Your task to perform on an android device: Open calendar and show me the fourth week of next month Image 0: 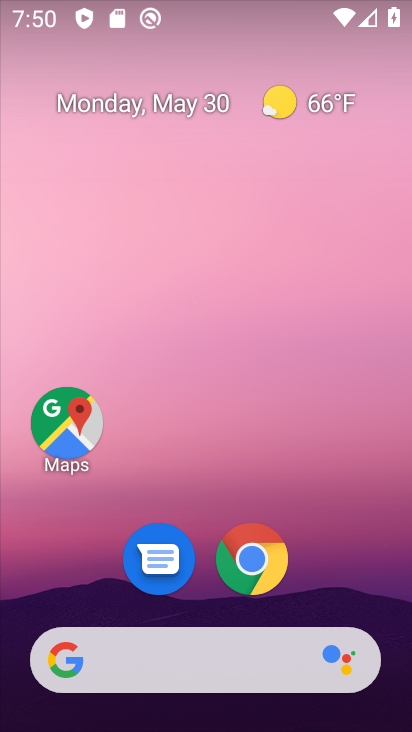
Step 0: drag from (266, 549) to (155, 45)
Your task to perform on an android device: Open calendar and show me the fourth week of next month Image 1: 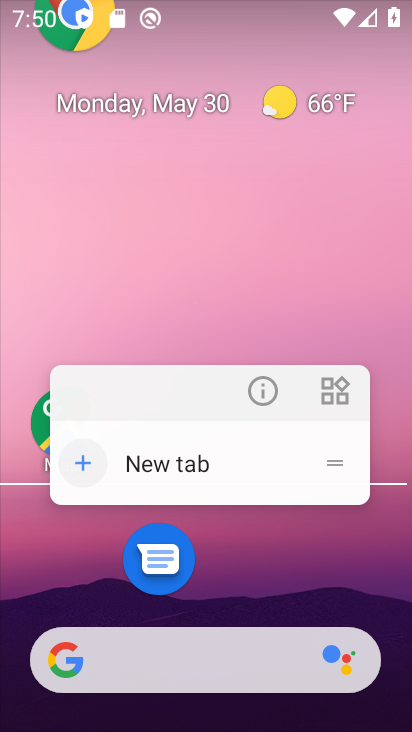
Step 1: click (147, 136)
Your task to perform on an android device: Open calendar and show me the fourth week of next month Image 2: 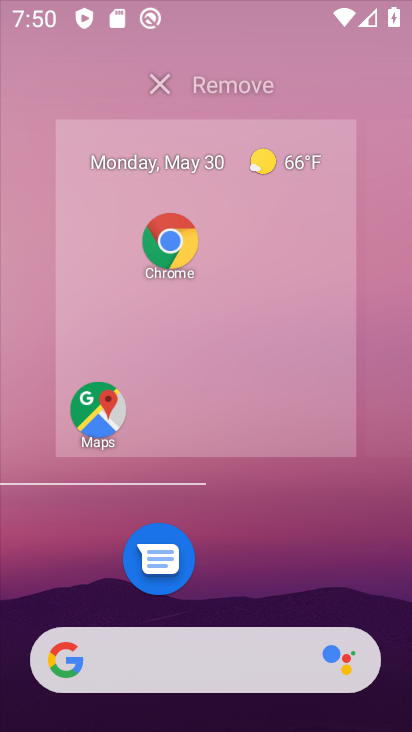
Step 2: drag from (262, 642) to (118, 69)
Your task to perform on an android device: Open calendar and show me the fourth week of next month Image 3: 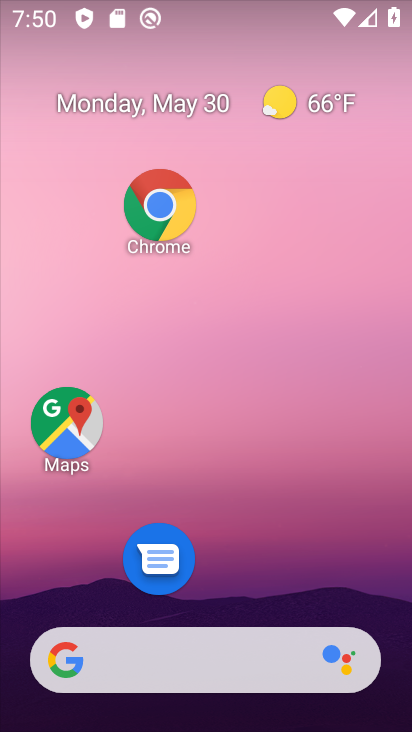
Step 3: drag from (167, 300) to (111, 69)
Your task to perform on an android device: Open calendar and show me the fourth week of next month Image 4: 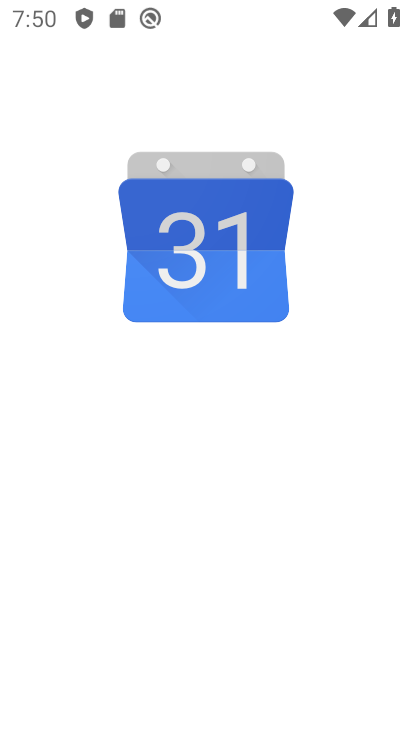
Step 4: drag from (216, 575) to (163, 155)
Your task to perform on an android device: Open calendar and show me the fourth week of next month Image 5: 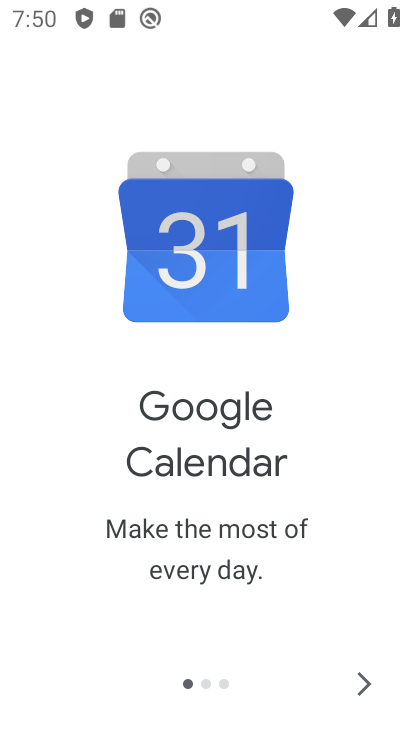
Step 5: click (362, 681)
Your task to perform on an android device: Open calendar and show me the fourth week of next month Image 6: 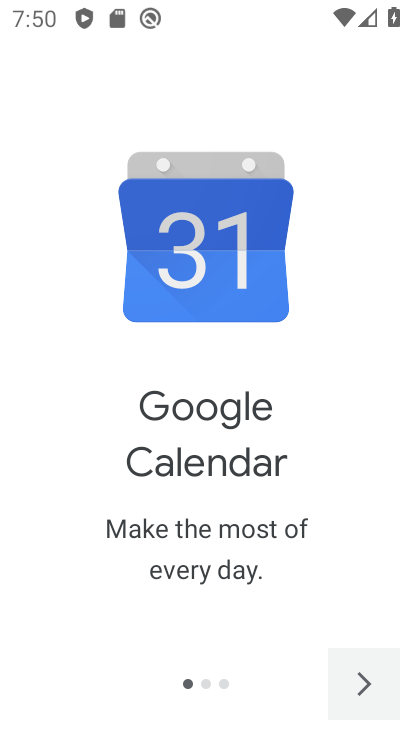
Step 6: click (362, 681)
Your task to perform on an android device: Open calendar and show me the fourth week of next month Image 7: 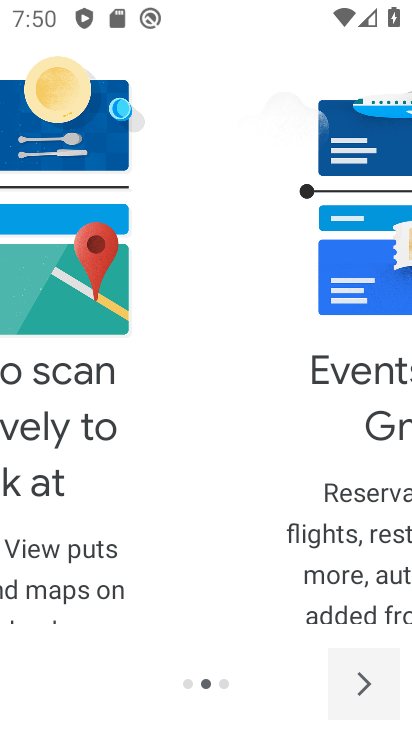
Step 7: click (361, 682)
Your task to perform on an android device: Open calendar and show me the fourth week of next month Image 8: 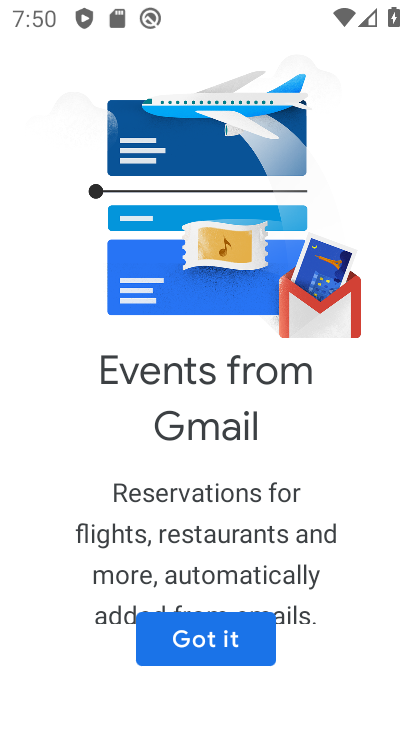
Step 8: click (361, 683)
Your task to perform on an android device: Open calendar and show me the fourth week of next month Image 9: 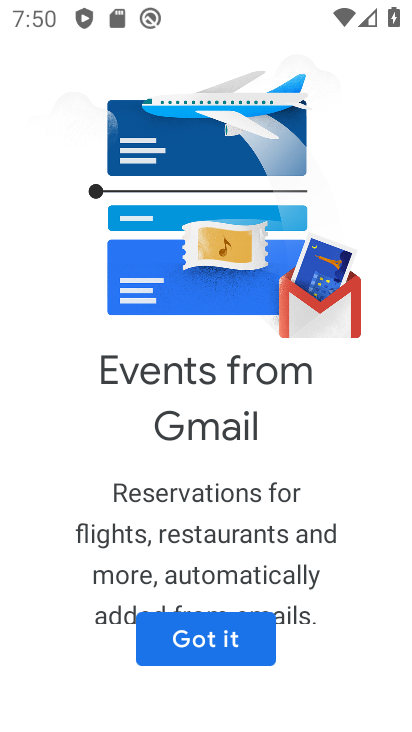
Step 9: click (361, 683)
Your task to perform on an android device: Open calendar and show me the fourth week of next month Image 10: 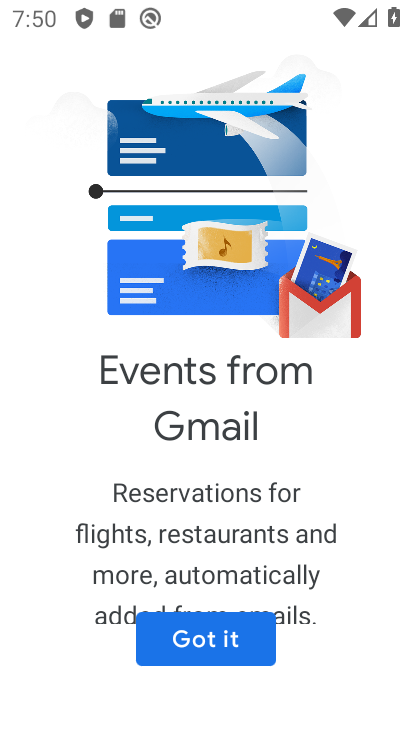
Step 10: click (362, 684)
Your task to perform on an android device: Open calendar and show me the fourth week of next month Image 11: 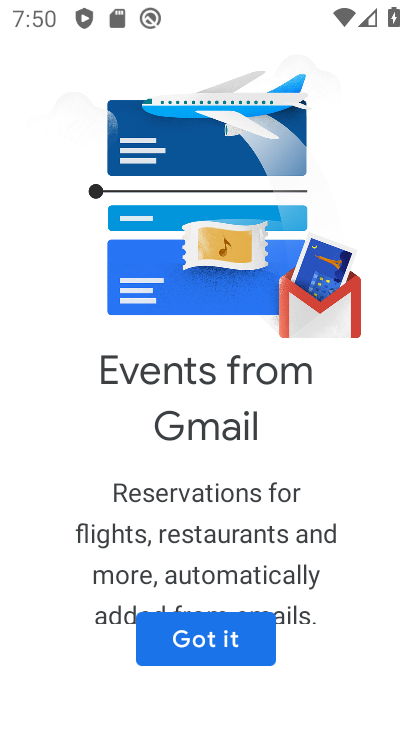
Step 11: click (362, 684)
Your task to perform on an android device: Open calendar and show me the fourth week of next month Image 12: 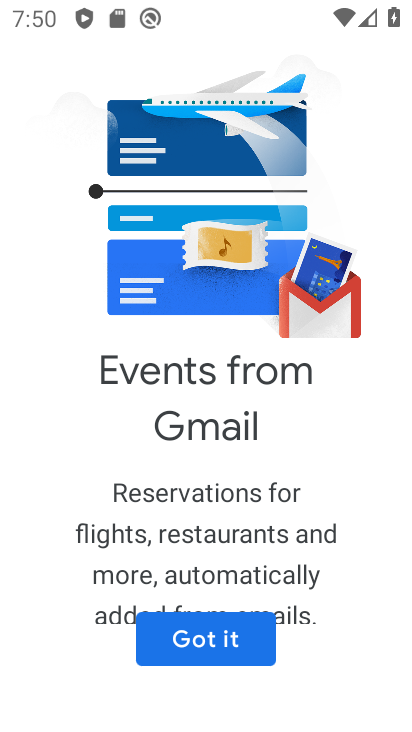
Step 12: click (363, 685)
Your task to perform on an android device: Open calendar and show me the fourth week of next month Image 13: 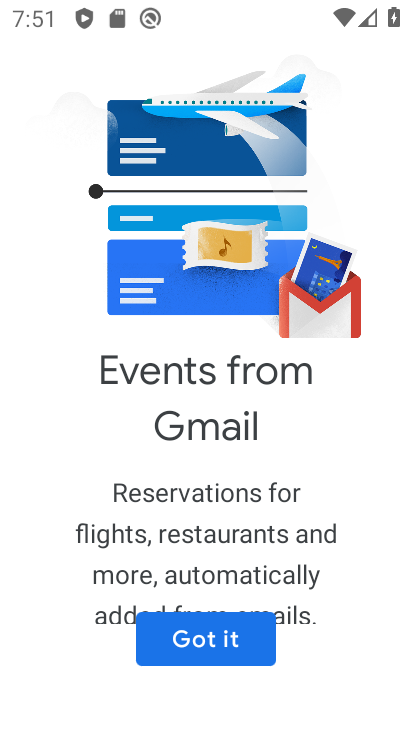
Step 13: click (204, 639)
Your task to perform on an android device: Open calendar and show me the fourth week of next month Image 14: 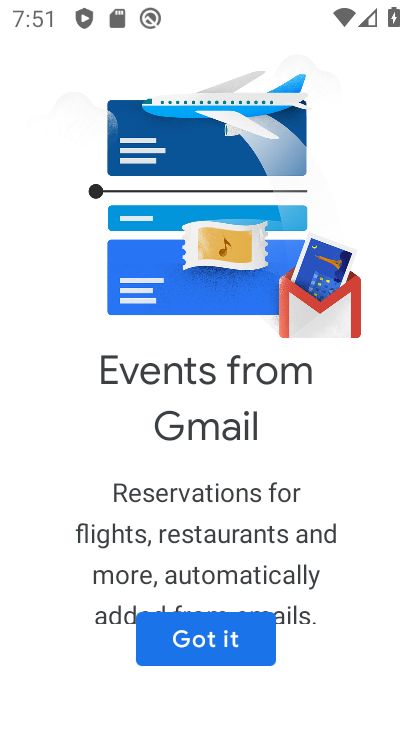
Step 14: click (203, 638)
Your task to perform on an android device: Open calendar and show me the fourth week of next month Image 15: 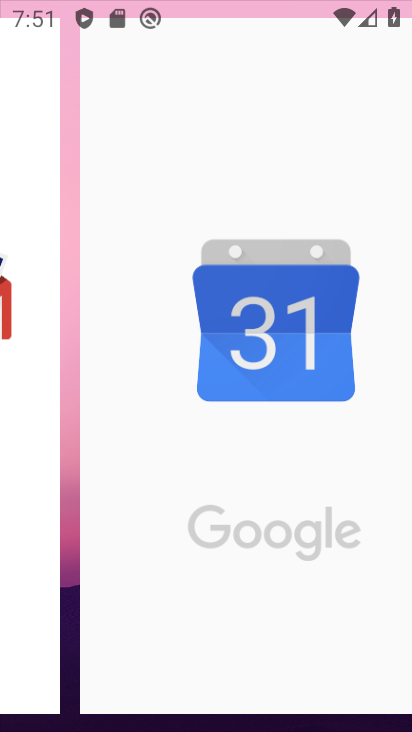
Step 15: click (216, 642)
Your task to perform on an android device: Open calendar and show me the fourth week of next month Image 16: 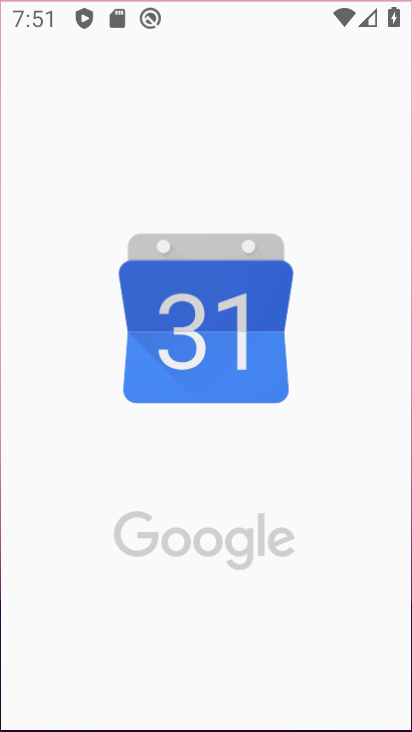
Step 16: click (218, 643)
Your task to perform on an android device: Open calendar and show me the fourth week of next month Image 17: 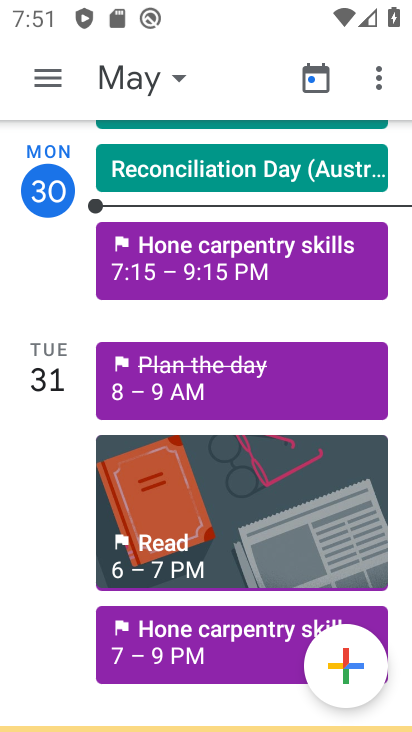
Step 17: click (169, 75)
Your task to perform on an android device: Open calendar and show me the fourth week of next month Image 18: 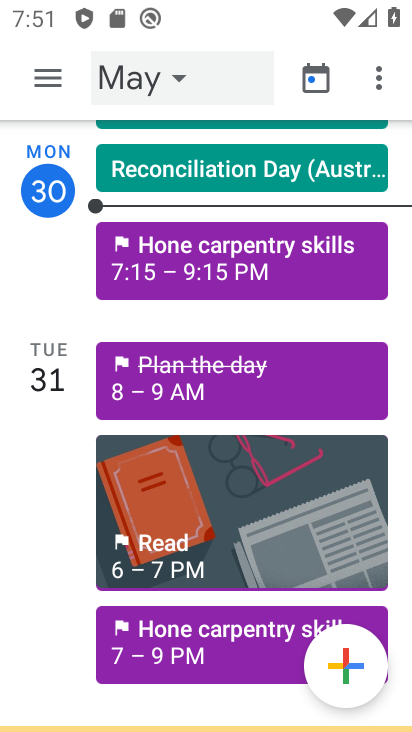
Step 18: click (171, 75)
Your task to perform on an android device: Open calendar and show me the fourth week of next month Image 19: 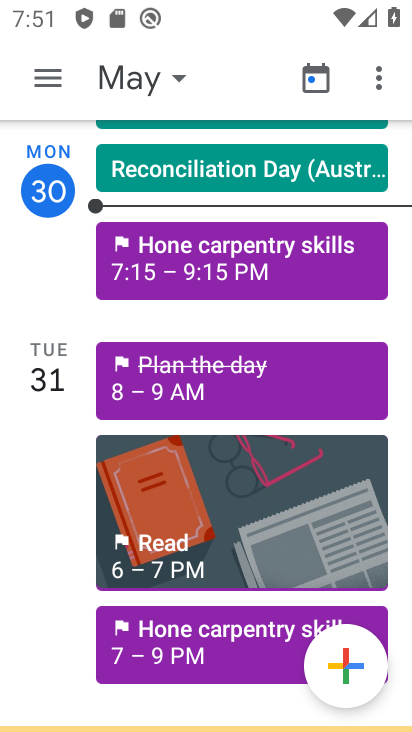
Step 19: drag from (300, 283) to (42, 308)
Your task to perform on an android device: Open calendar and show me the fourth week of next month Image 20: 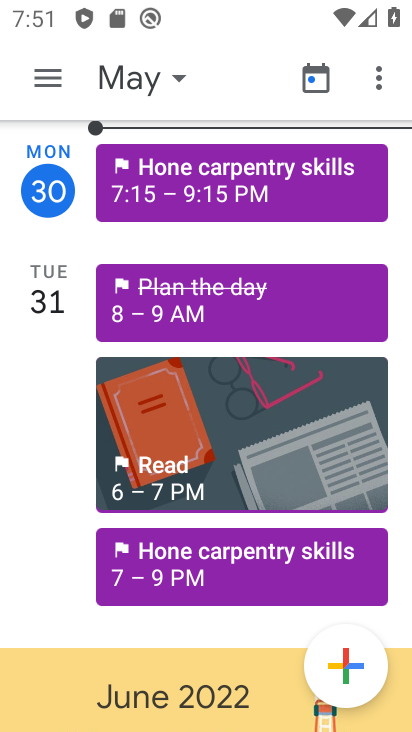
Step 20: click (174, 71)
Your task to perform on an android device: Open calendar and show me the fourth week of next month Image 21: 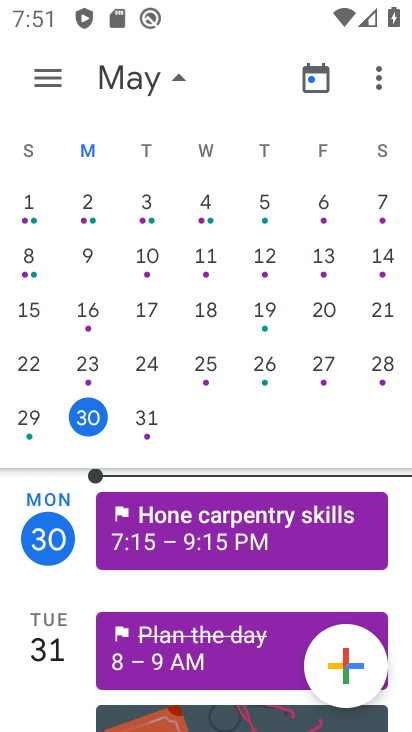
Step 21: drag from (298, 300) to (20, 271)
Your task to perform on an android device: Open calendar and show me the fourth week of next month Image 22: 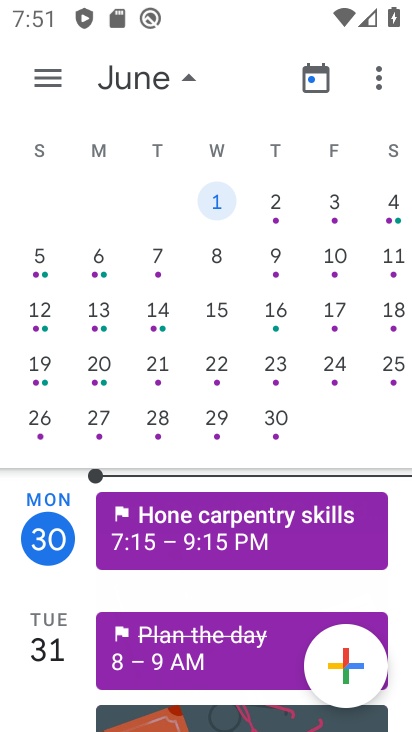
Step 22: click (57, 441)
Your task to perform on an android device: Open calendar and show me the fourth week of next month Image 23: 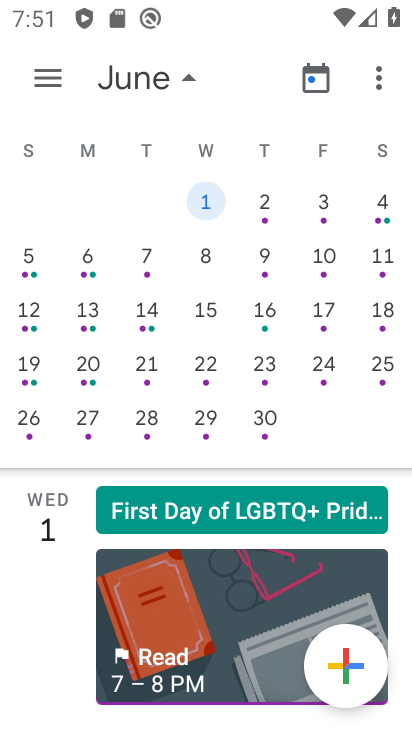
Step 23: drag from (332, 324) to (3, 422)
Your task to perform on an android device: Open calendar and show me the fourth week of next month Image 24: 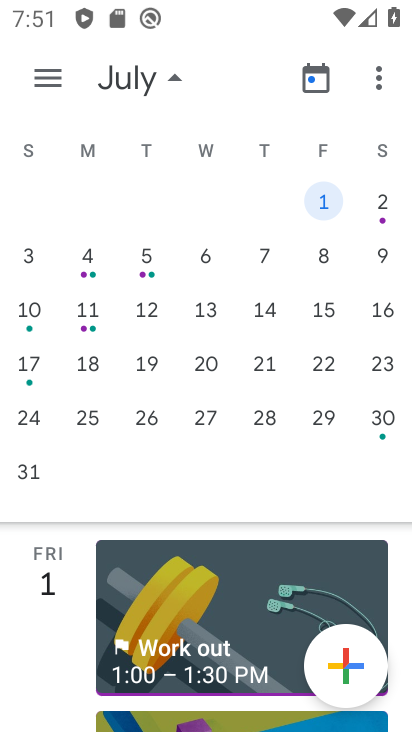
Step 24: drag from (324, 314) to (402, 333)
Your task to perform on an android device: Open calendar and show me the fourth week of next month Image 25: 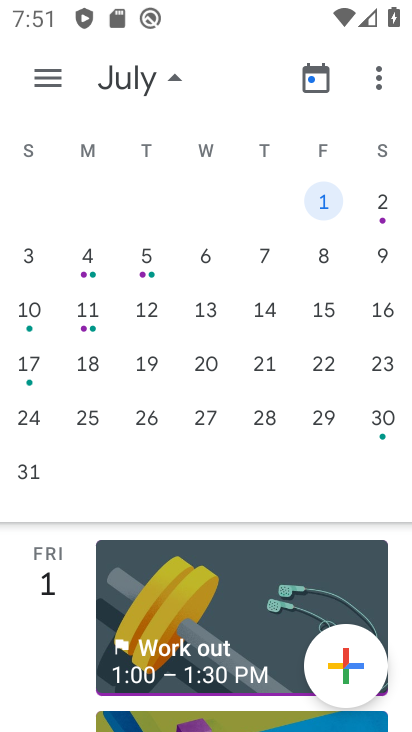
Step 25: drag from (99, 315) to (320, 303)
Your task to perform on an android device: Open calendar and show me the fourth week of next month Image 26: 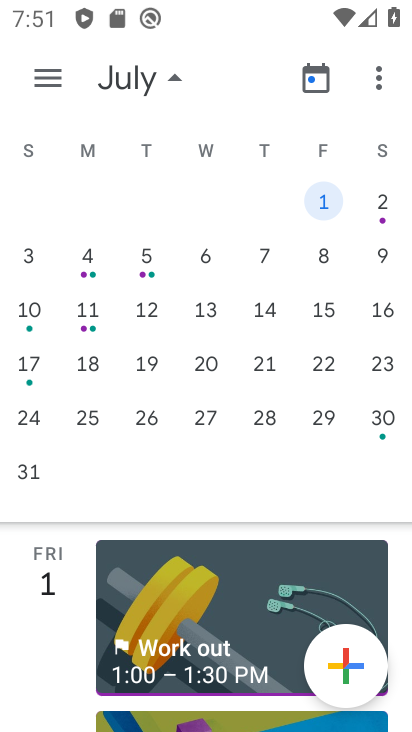
Step 26: drag from (127, 345) to (394, 340)
Your task to perform on an android device: Open calendar and show me the fourth week of next month Image 27: 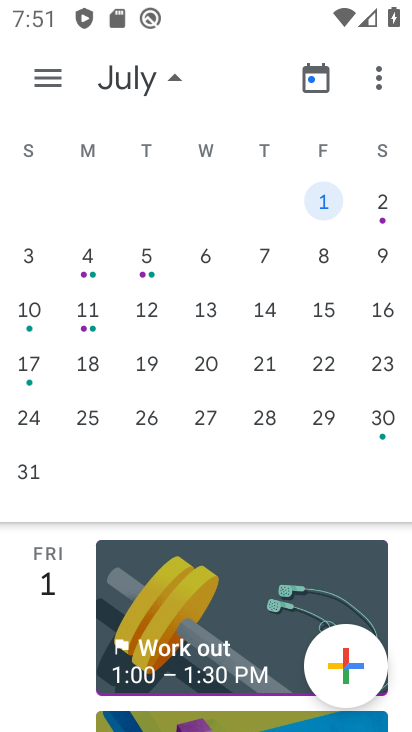
Step 27: drag from (119, 324) to (377, 322)
Your task to perform on an android device: Open calendar and show me the fourth week of next month Image 28: 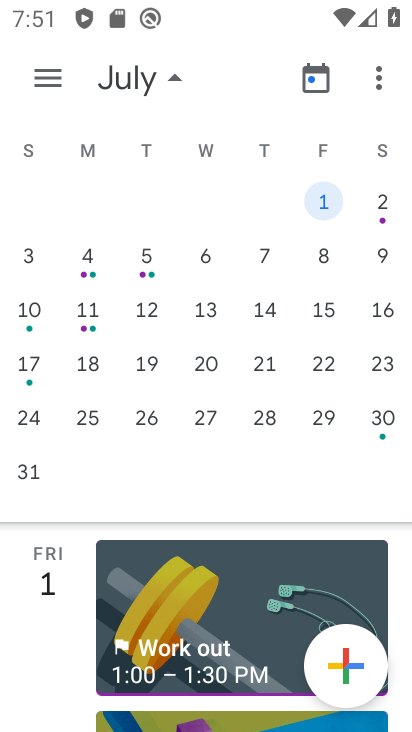
Step 28: drag from (80, 299) to (382, 296)
Your task to perform on an android device: Open calendar and show me the fourth week of next month Image 29: 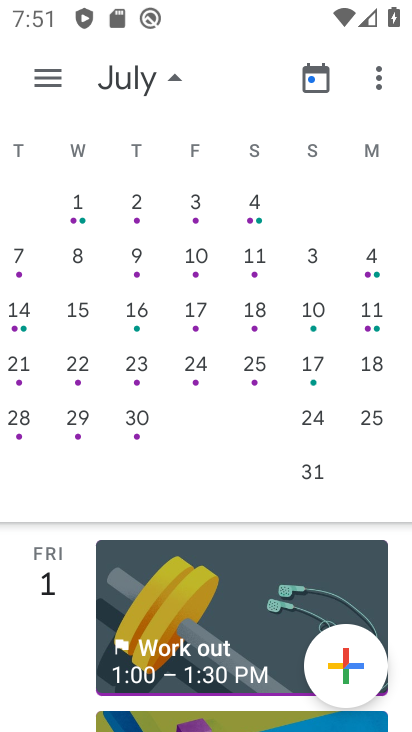
Step 29: drag from (40, 356) to (409, 371)
Your task to perform on an android device: Open calendar and show me the fourth week of next month Image 30: 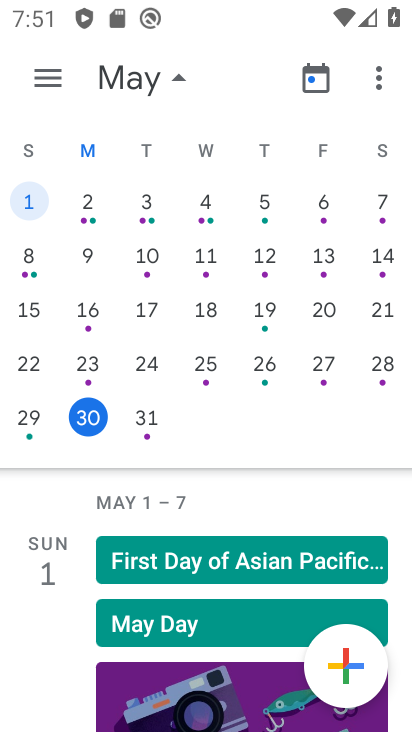
Step 30: drag from (312, 265) to (41, 289)
Your task to perform on an android device: Open calendar and show me the fourth week of next month Image 31: 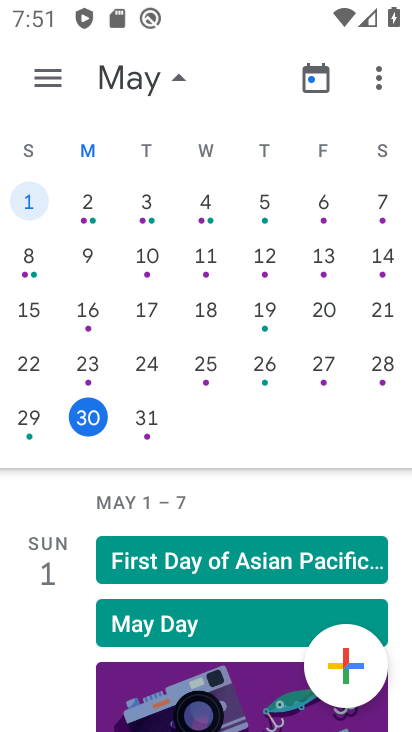
Step 31: drag from (286, 270) to (12, 309)
Your task to perform on an android device: Open calendar and show me the fourth week of next month Image 32: 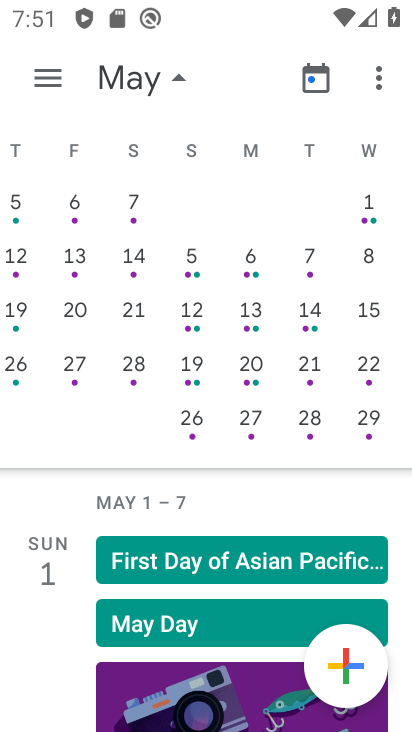
Step 32: drag from (224, 336) to (84, 358)
Your task to perform on an android device: Open calendar and show me the fourth week of next month Image 33: 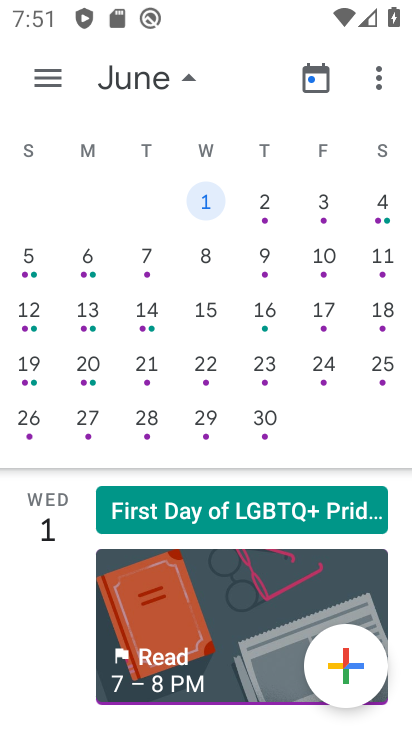
Step 33: click (200, 361)
Your task to perform on an android device: Open calendar and show me the fourth week of next month Image 34: 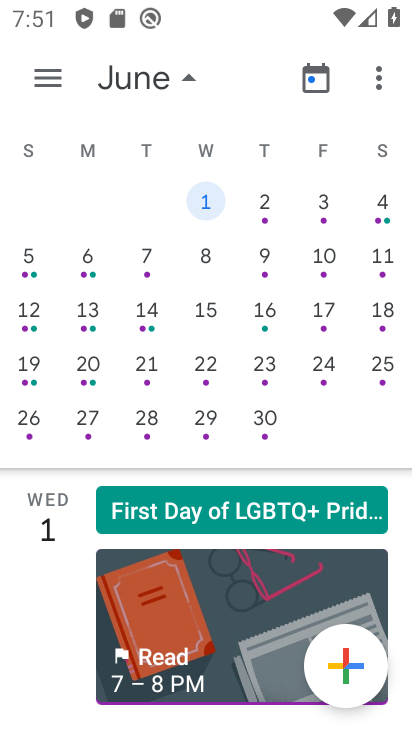
Step 34: click (200, 361)
Your task to perform on an android device: Open calendar and show me the fourth week of next month Image 35: 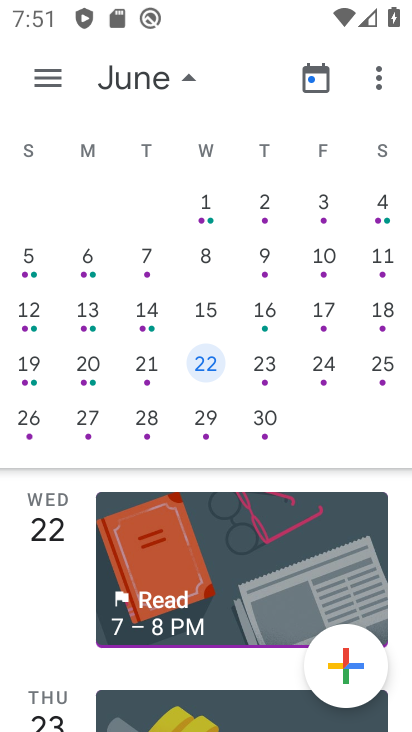
Step 35: click (199, 361)
Your task to perform on an android device: Open calendar and show me the fourth week of next month Image 36: 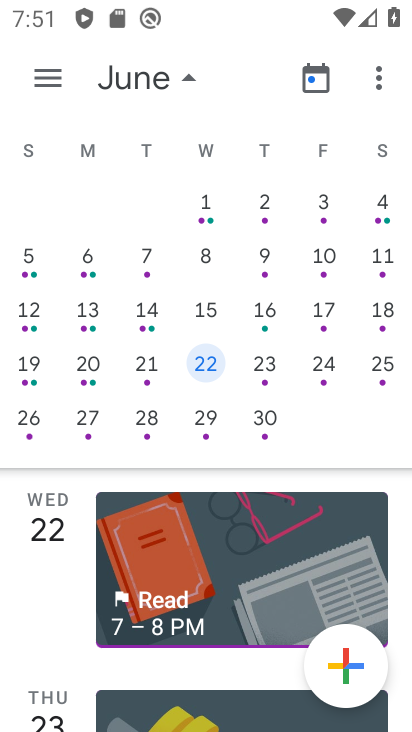
Step 36: click (201, 364)
Your task to perform on an android device: Open calendar and show me the fourth week of next month Image 37: 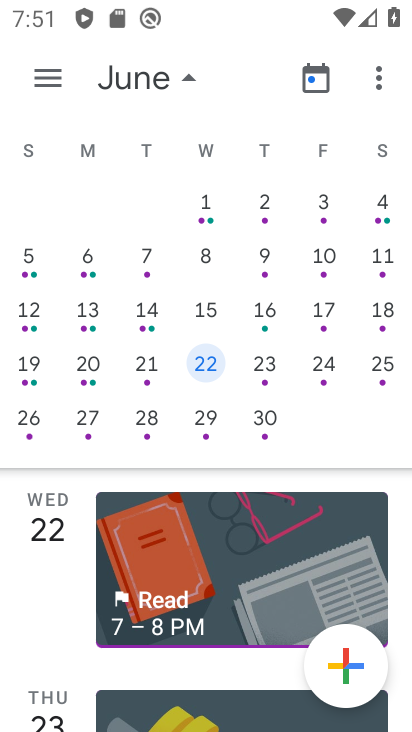
Step 37: task complete